Your task to perform on an android device: Open the stopwatch Image 0: 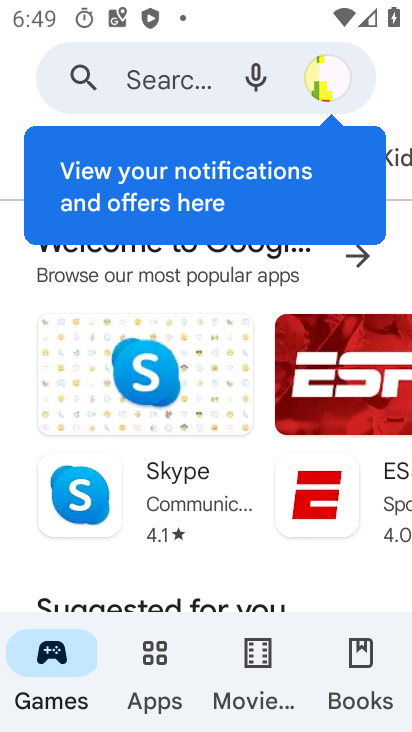
Step 0: press home button
Your task to perform on an android device: Open the stopwatch Image 1: 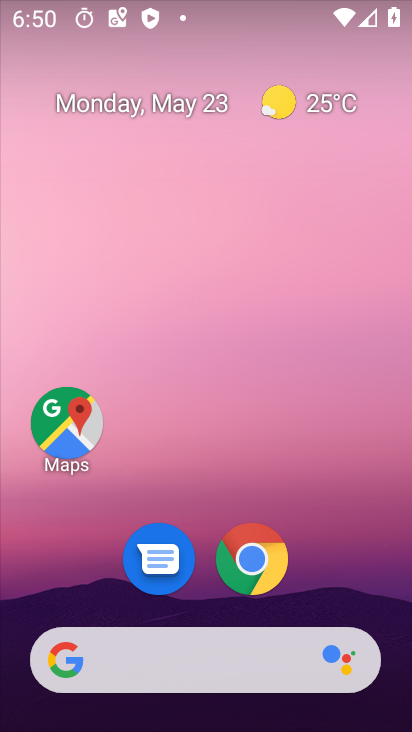
Step 1: drag from (398, 654) to (317, 63)
Your task to perform on an android device: Open the stopwatch Image 2: 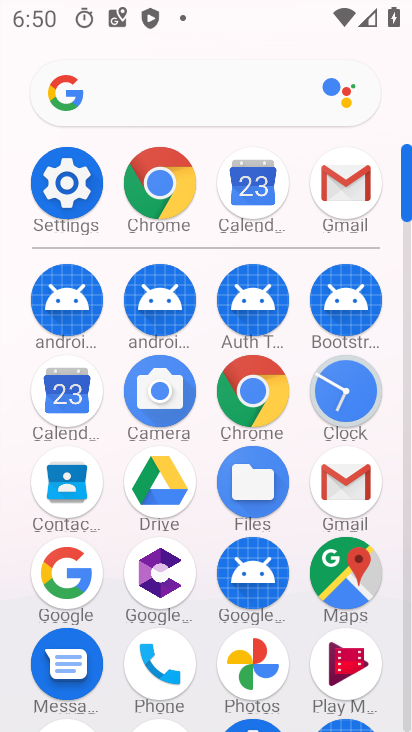
Step 2: click (329, 382)
Your task to perform on an android device: Open the stopwatch Image 3: 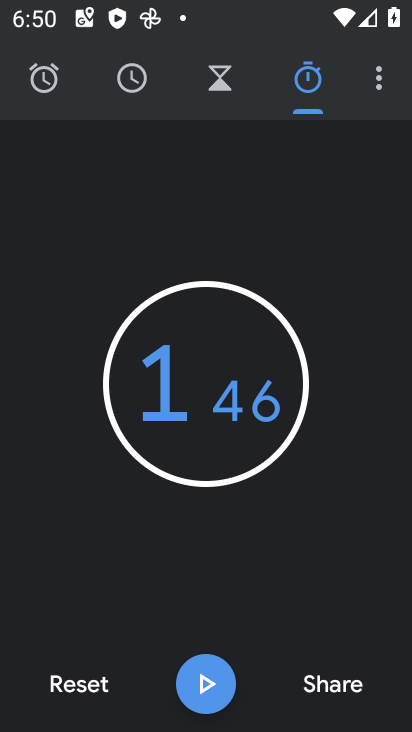
Step 3: task complete